Your task to perform on an android device: Go to accessibility settings Image 0: 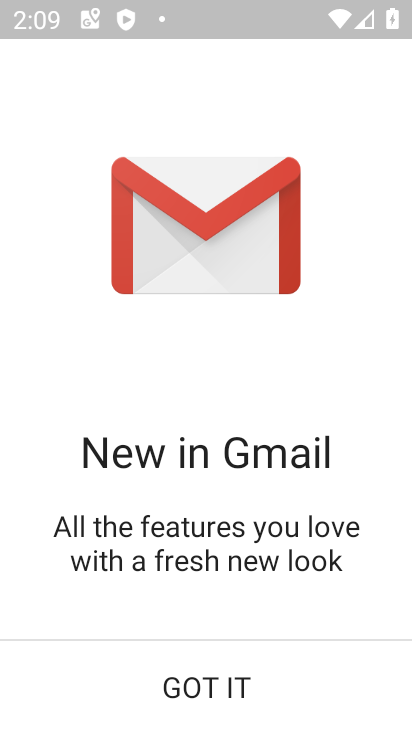
Step 0: press home button
Your task to perform on an android device: Go to accessibility settings Image 1: 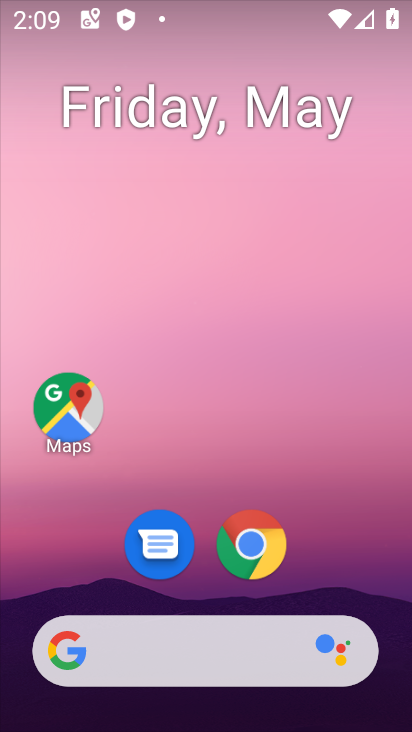
Step 1: drag from (219, 571) to (224, 126)
Your task to perform on an android device: Go to accessibility settings Image 2: 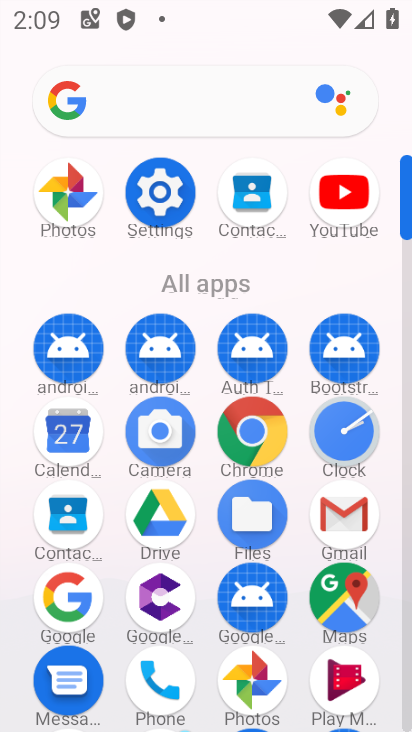
Step 2: click (170, 204)
Your task to perform on an android device: Go to accessibility settings Image 3: 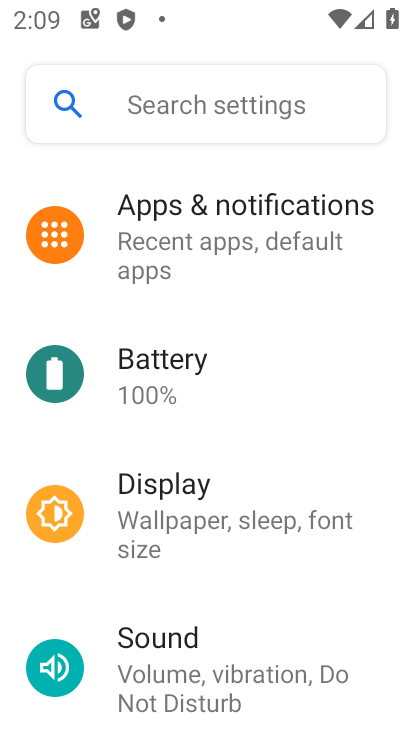
Step 3: drag from (218, 656) to (206, 255)
Your task to perform on an android device: Go to accessibility settings Image 4: 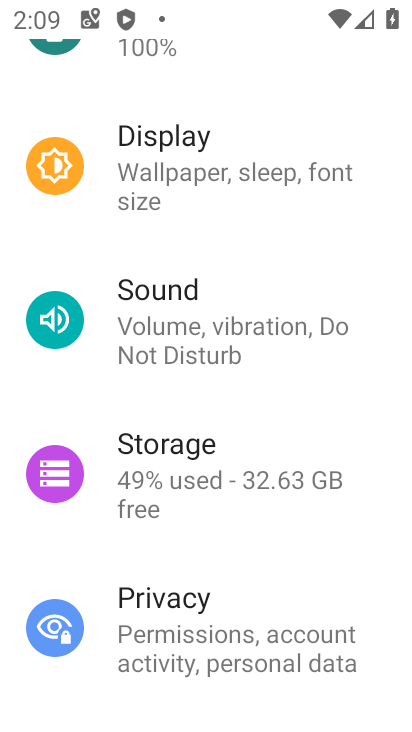
Step 4: drag from (204, 570) to (252, 247)
Your task to perform on an android device: Go to accessibility settings Image 5: 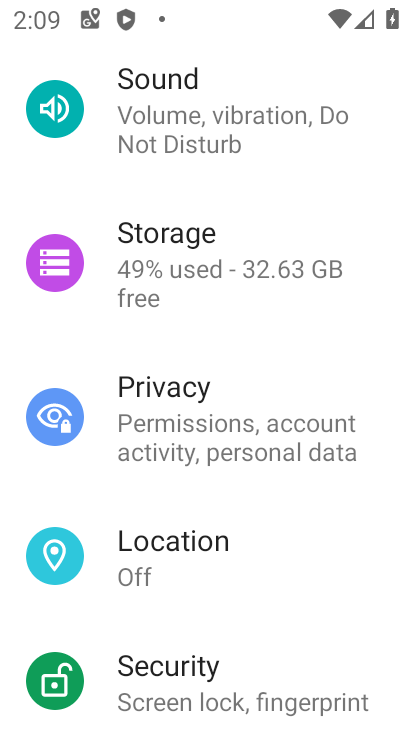
Step 5: drag from (207, 598) to (244, 255)
Your task to perform on an android device: Go to accessibility settings Image 6: 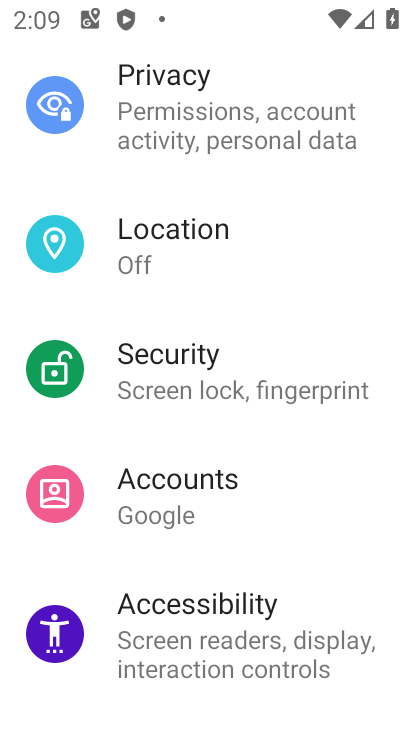
Step 6: click (221, 600)
Your task to perform on an android device: Go to accessibility settings Image 7: 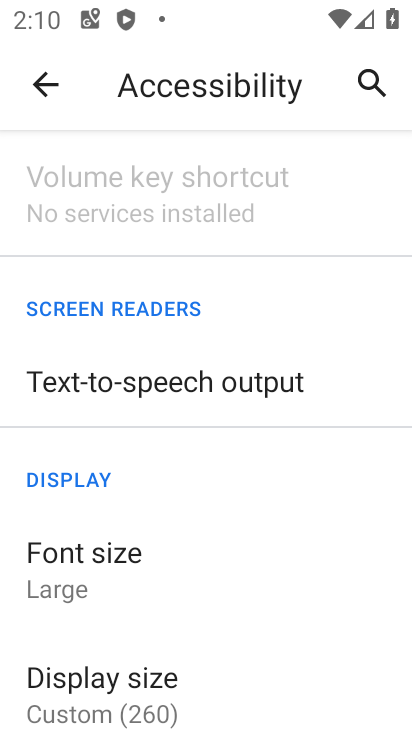
Step 7: task complete